Your task to perform on an android device: set default search engine in the chrome app Image 0: 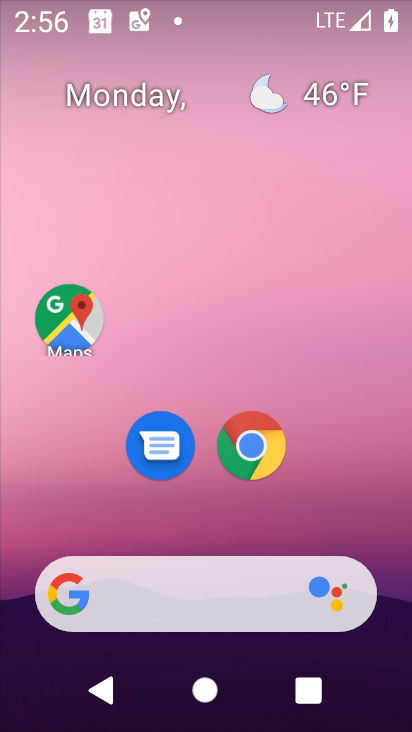
Step 0: click (249, 440)
Your task to perform on an android device: set default search engine in the chrome app Image 1: 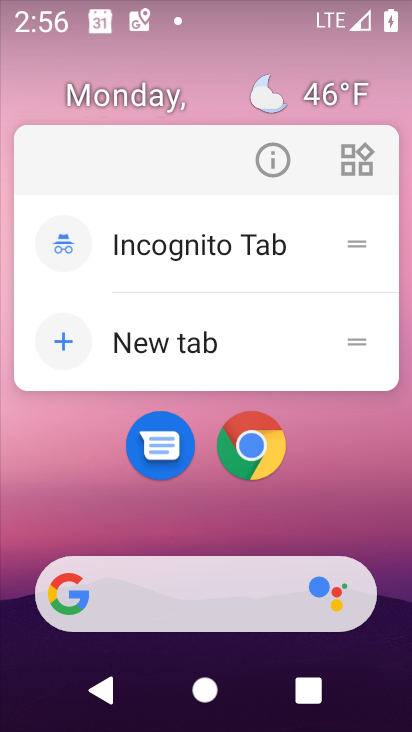
Step 1: click (257, 447)
Your task to perform on an android device: set default search engine in the chrome app Image 2: 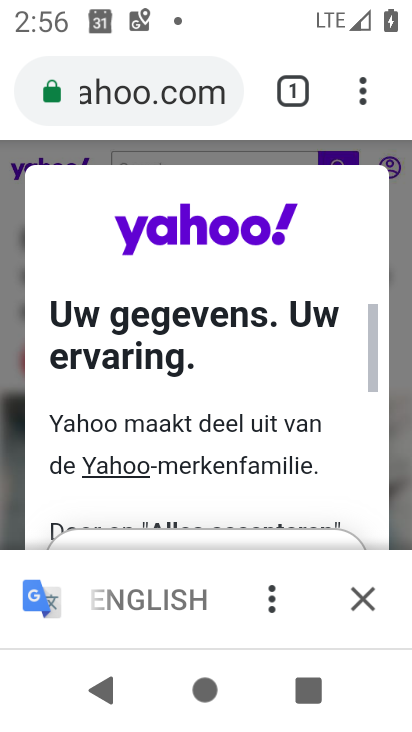
Step 2: drag from (361, 103) to (172, 481)
Your task to perform on an android device: set default search engine in the chrome app Image 3: 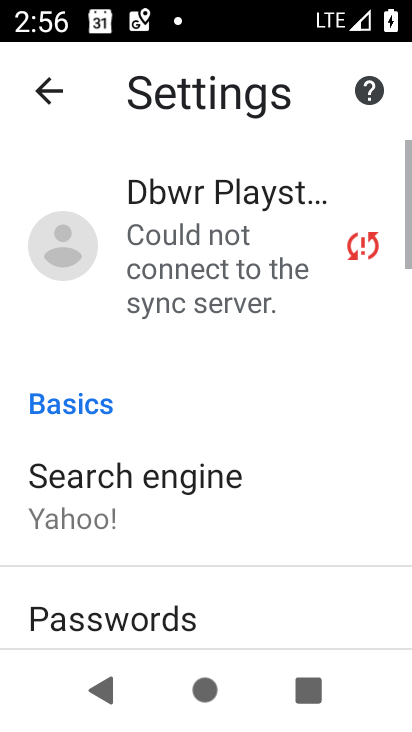
Step 3: click (156, 496)
Your task to perform on an android device: set default search engine in the chrome app Image 4: 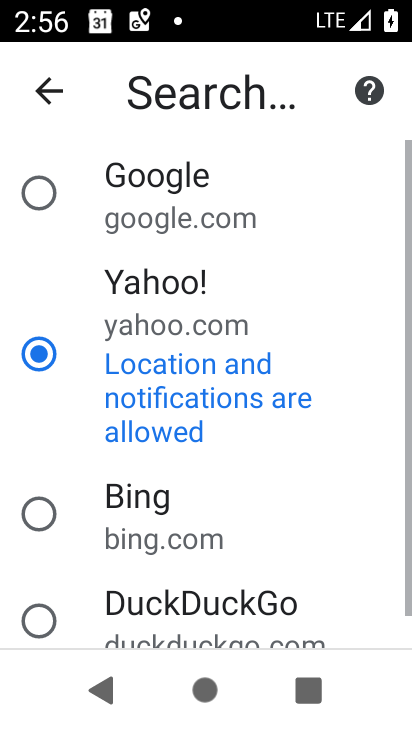
Step 4: click (171, 226)
Your task to perform on an android device: set default search engine in the chrome app Image 5: 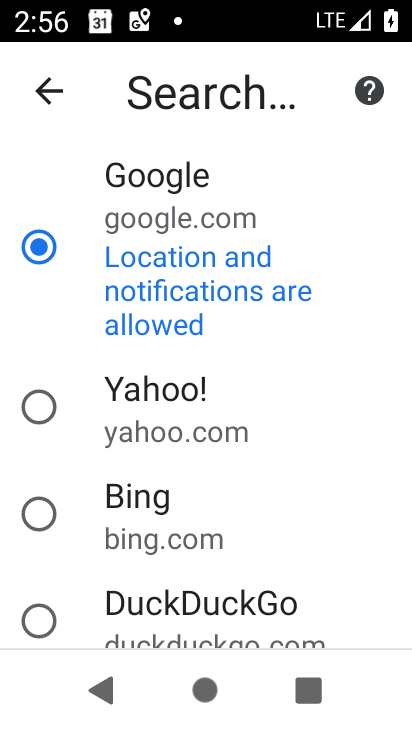
Step 5: task complete